Your task to perform on an android device: Open network settings Image 0: 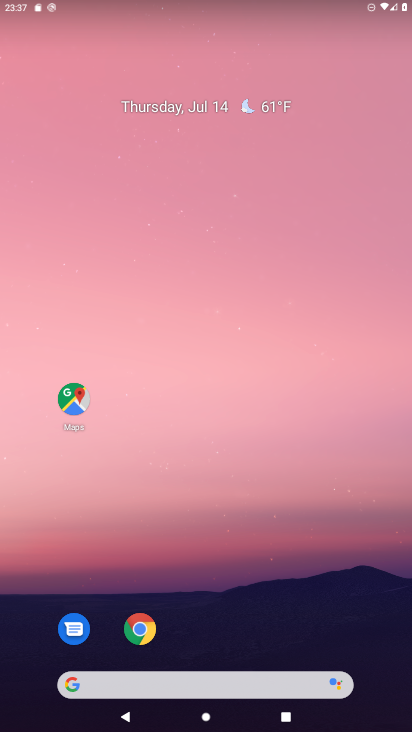
Step 0: drag from (246, 3) to (237, 597)
Your task to perform on an android device: Open network settings Image 1: 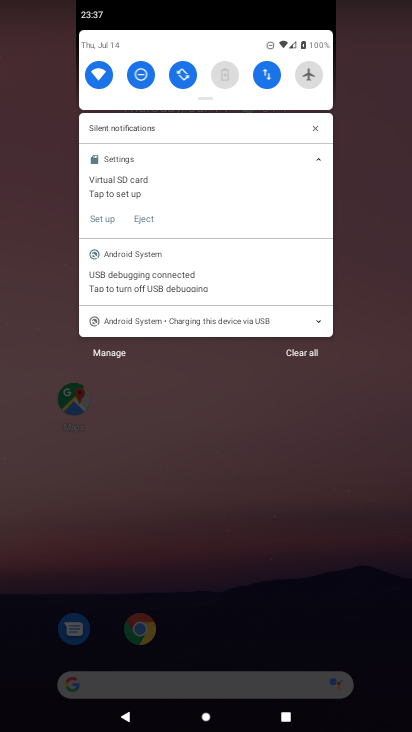
Step 1: click (259, 76)
Your task to perform on an android device: Open network settings Image 2: 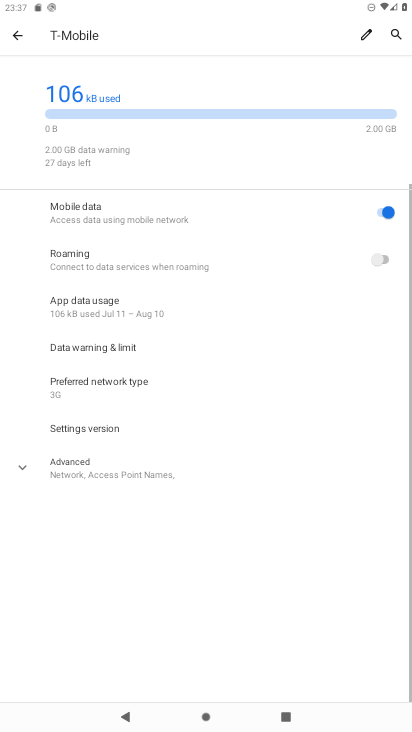
Step 2: task complete